Your task to perform on an android device: Open calendar and show me the third week of next month Image 0: 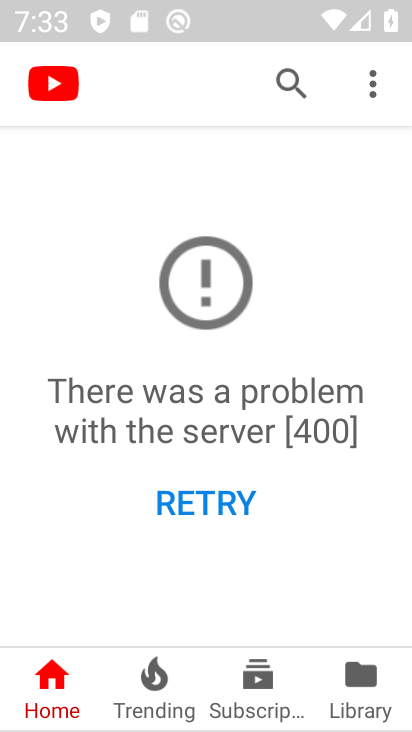
Step 0: press home button
Your task to perform on an android device: Open calendar and show me the third week of next month Image 1: 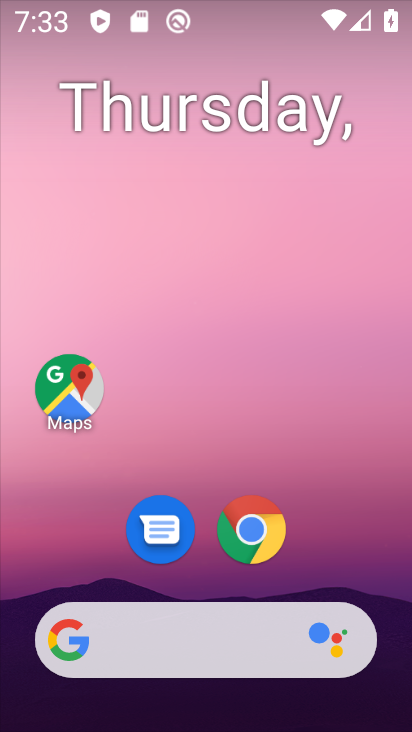
Step 1: drag from (388, 698) to (340, 149)
Your task to perform on an android device: Open calendar and show me the third week of next month Image 2: 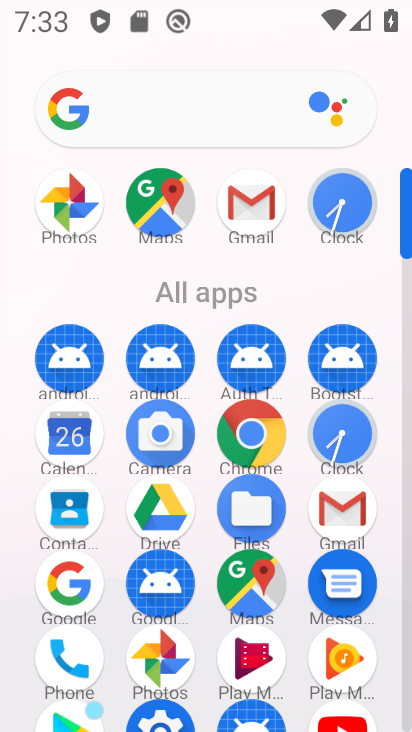
Step 2: click (68, 427)
Your task to perform on an android device: Open calendar and show me the third week of next month Image 3: 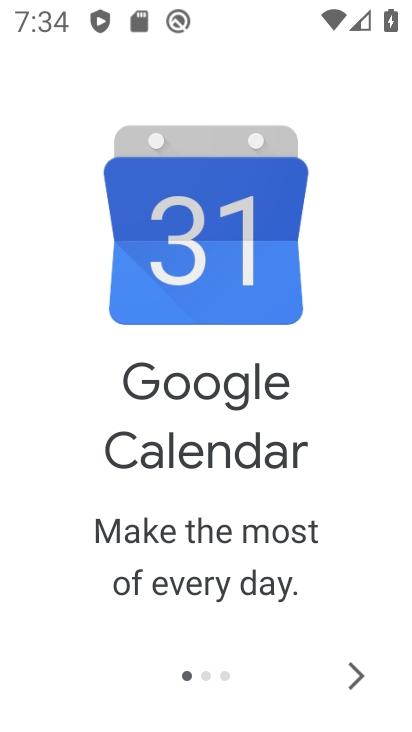
Step 3: click (349, 681)
Your task to perform on an android device: Open calendar and show me the third week of next month Image 4: 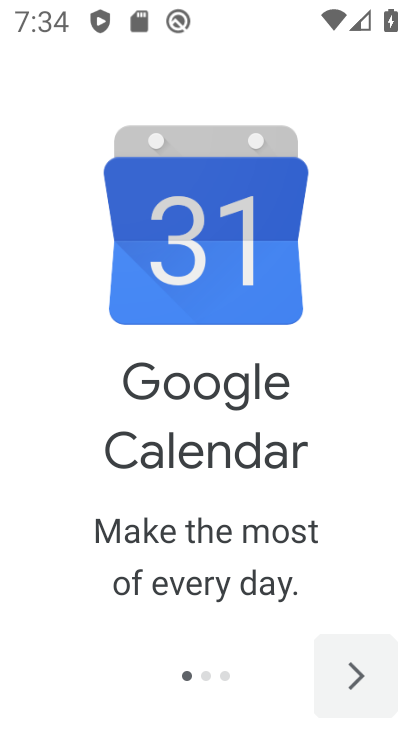
Step 4: click (349, 680)
Your task to perform on an android device: Open calendar and show me the third week of next month Image 5: 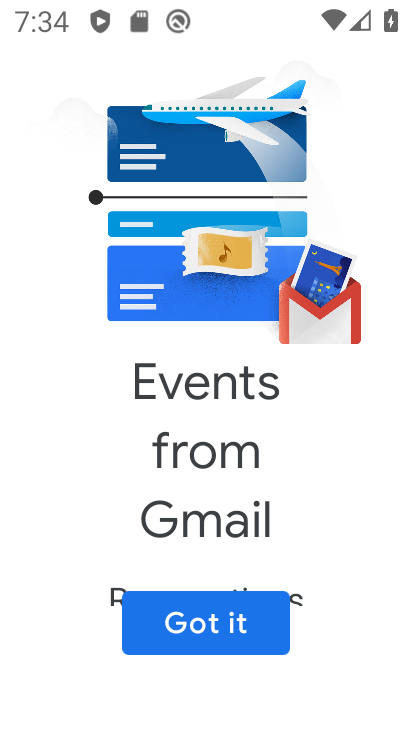
Step 5: click (230, 614)
Your task to perform on an android device: Open calendar and show me the third week of next month Image 6: 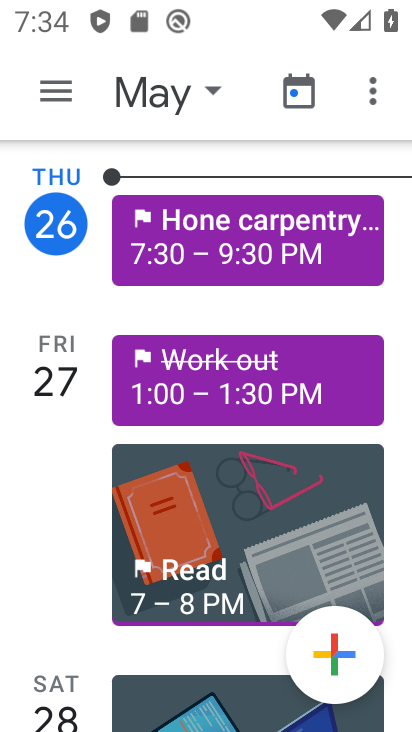
Step 6: click (212, 91)
Your task to perform on an android device: Open calendar and show me the third week of next month Image 7: 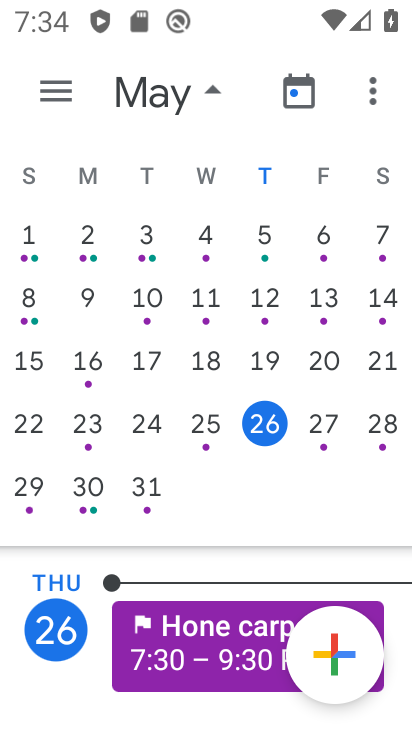
Step 7: drag from (407, 328) to (9, 299)
Your task to perform on an android device: Open calendar and show me the third week of next month Image 8: 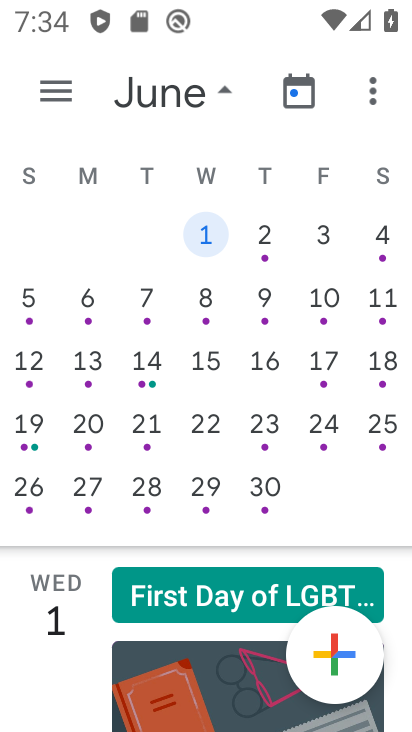
Step 8: click (206, 353)
Your task to perform on an android device: Open calendar and show me the third week of next month Image 9: 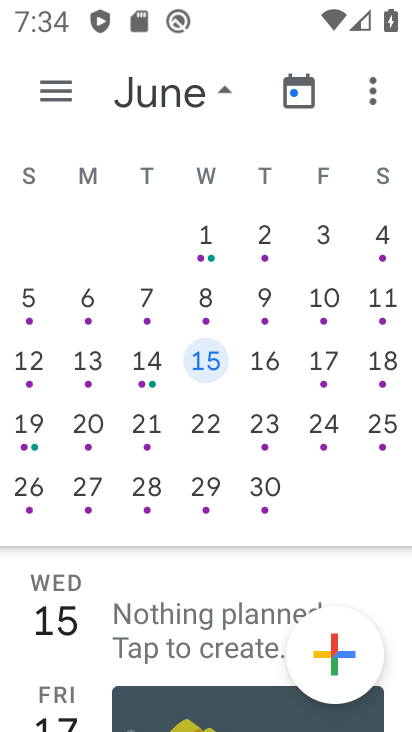
Step 9: click (41, 87)
Your task to perform on an android device: Open calendar and show me the third week of next month Image 10: 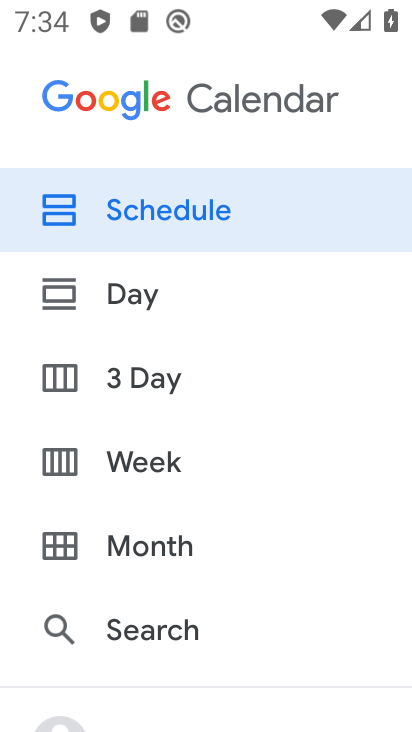
Step 10: click (133, 456)
Your task to perform on an android device: Open calendar and show me the third week of next month Image 11: 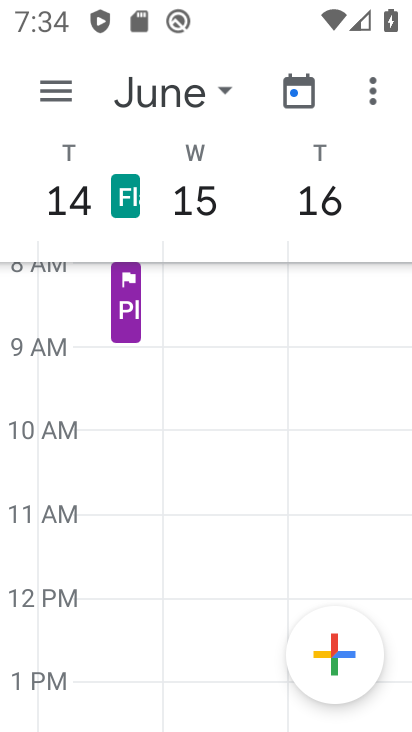
Step 11: task complete